Your task to perform on an android device: Go to ESPN.com Image 0: 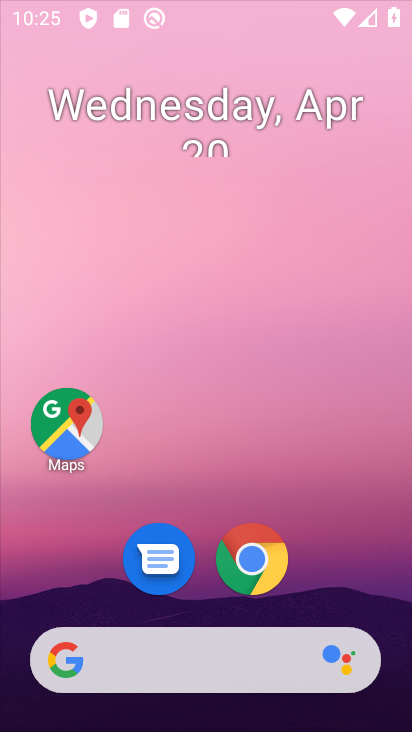
Step 0: click (281, 27)
Your task to perform on an android device: Go to ESPN.com Image 1: 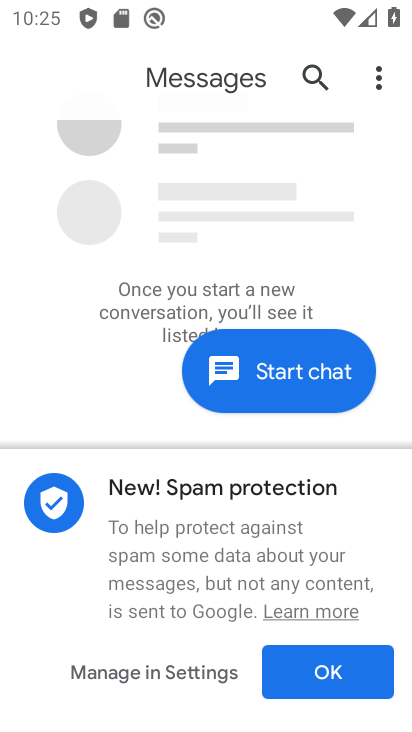
Step 1: press home button
Your task to perform on an android device: Go to ESPN.com Image 2: 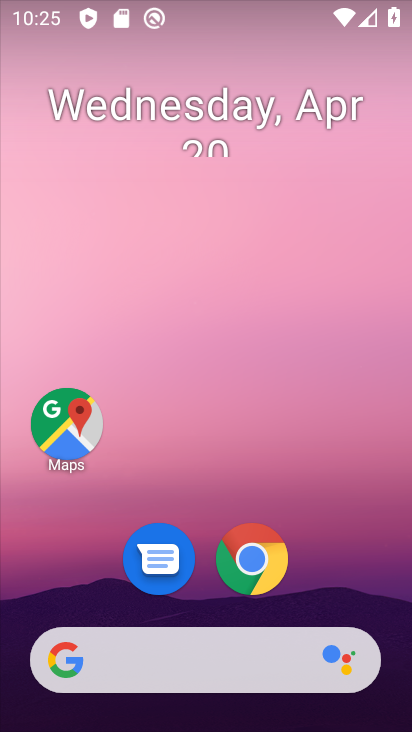
Step 2: drag from (304, 643) to (323, 11)
Your task to perform on an android device: Go to ESPN.com Image 3: 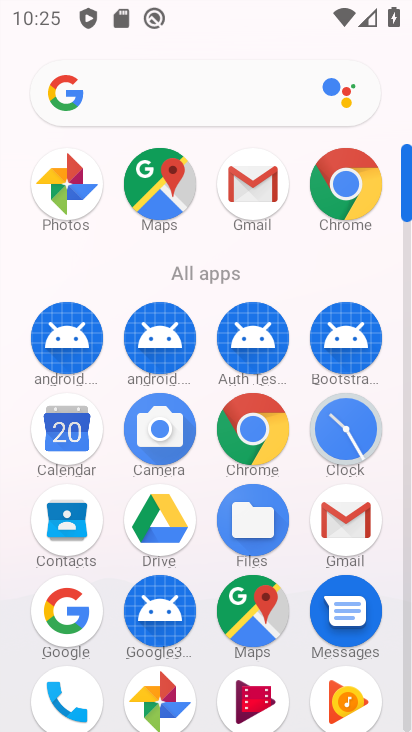
Step 3: click (257, 421)
Your task to perform on an android device: Go to ESPN.com Image 4: 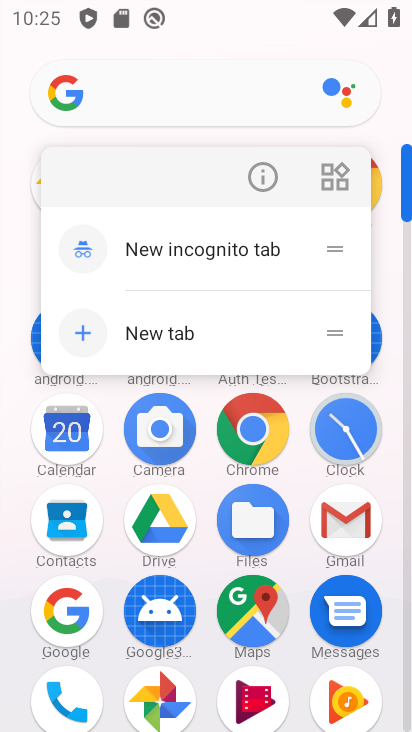
Step 4: click (257, 421)
Your task to perform on an android device: Go to ESPN.com Image 5: 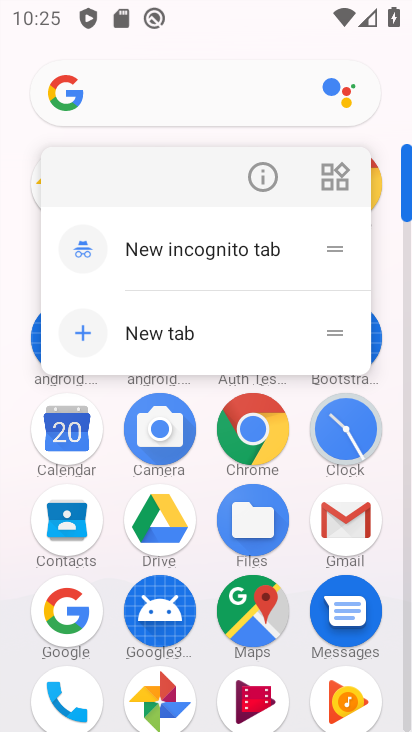
Step 5: click (242, 424)
Your task to perform on an android device: Go to ESPN.com Image 6: 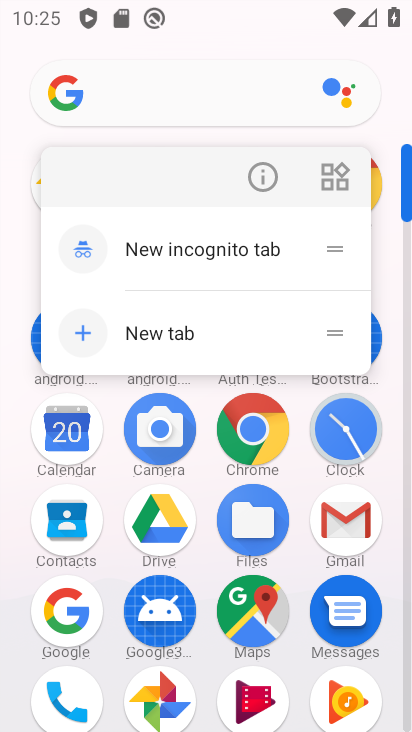
Step 6: click (242, 424)
Your task to perform on an android device: Go to ESPN.com Image 7: 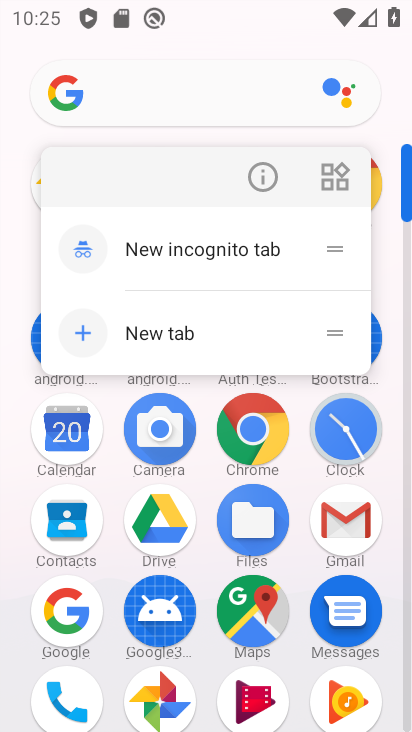
Step 7: click (242, 424)
Your task to perform on an android device: Go to ESPN.com Image 8: 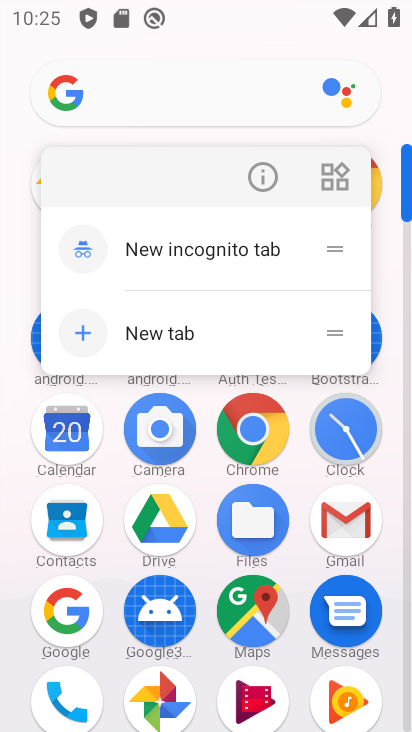
Step 8: click (242, 424)
Your task to perform on an android device: Go to ESPN.com Image 9: 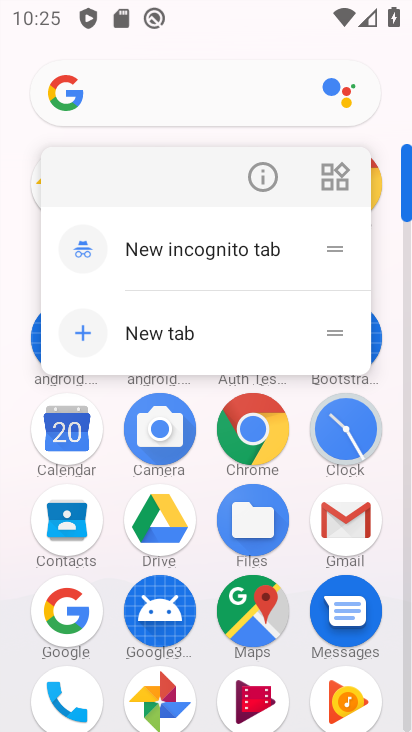
Step 9: click (242, 424)
Your task to perform on an android device: Go to ESPN.com Image 10: 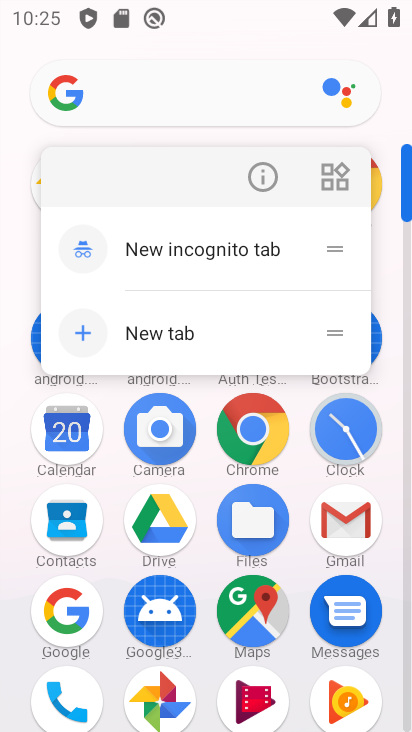
Step 10: click (241, 433)
Your task to perform on an android device: Go to ESPN.com Image 11: 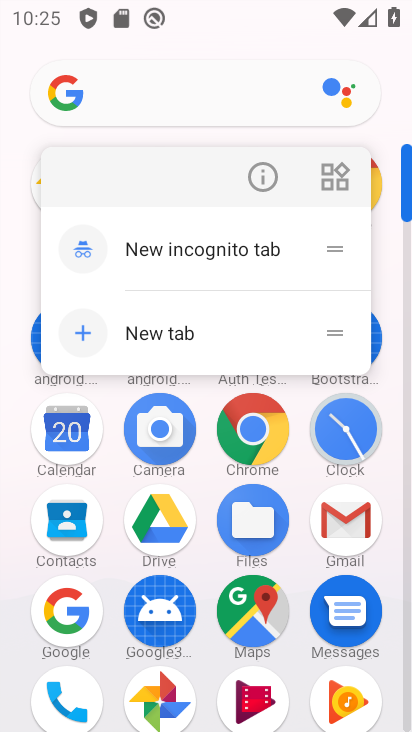
Step 11: click (241, 433)
Your task to perform on an android device: Go to ESPN.com Image 12: 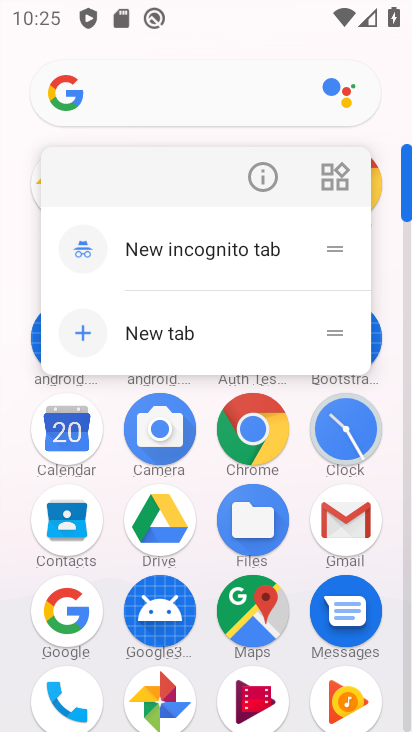
Step 12: click (241, 433)
Your task to perform on an android device: Go to ESPN.com Image 13: 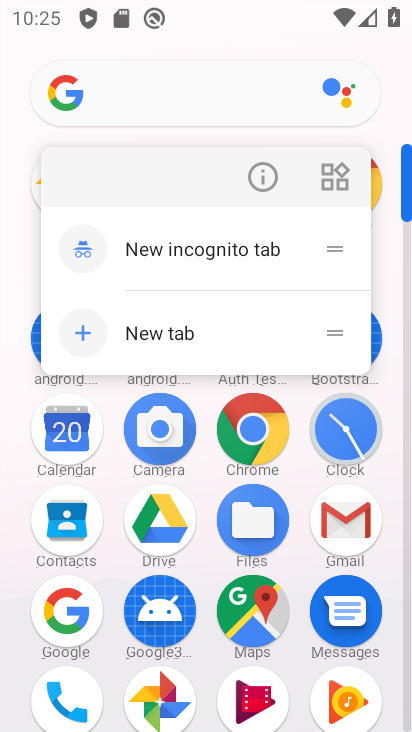
Step 13: click (241, 433)
Your task to perform on an android device: Go to ESPN.com Image 14: 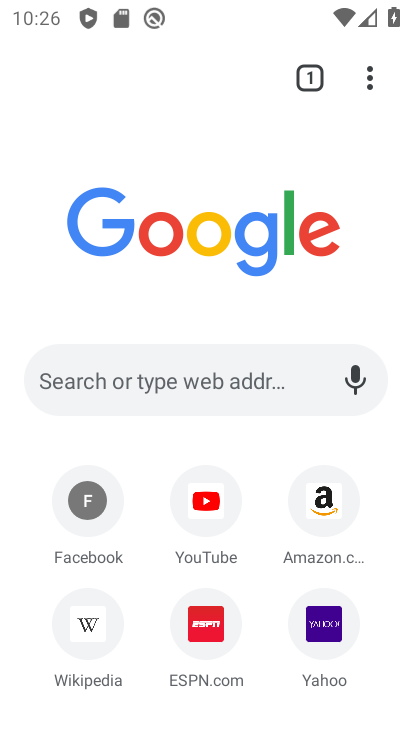
Step 14: click (202, 379)
Your task to perform on an android device: Go to ESPN.com Image 15: 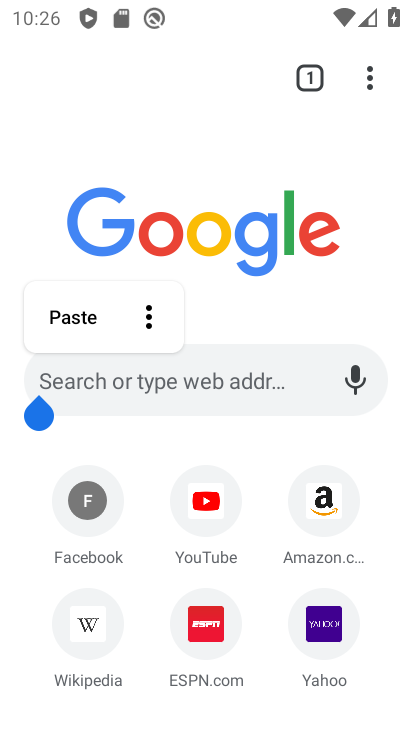
Step 15: click (198, 366)
Your task to perform on an android device: Go to ESPN.com Image 16: 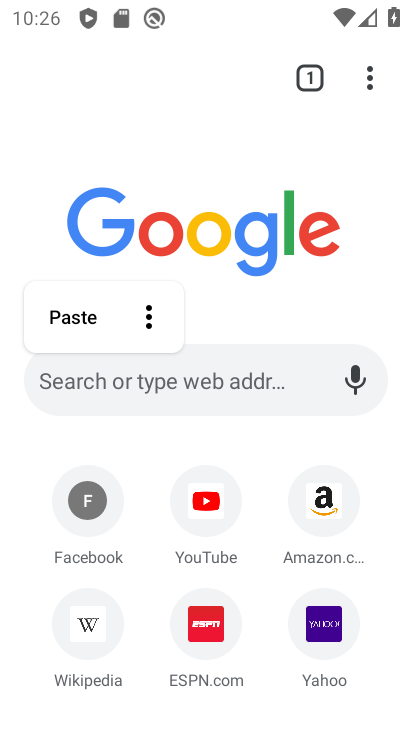
Step 16: type "es"
Your task to perform on an android device: Go to ESPN.com Image 17: 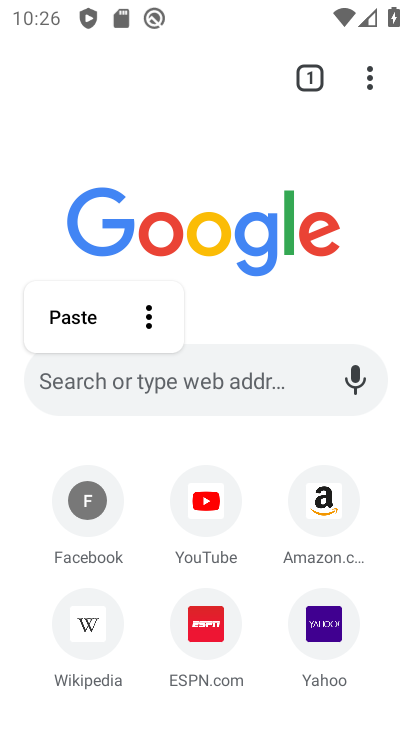
Step 17: drag from (165, 409) to (186, 162)
Your task to perform on an android device: Go to ESPN.com Image 18: 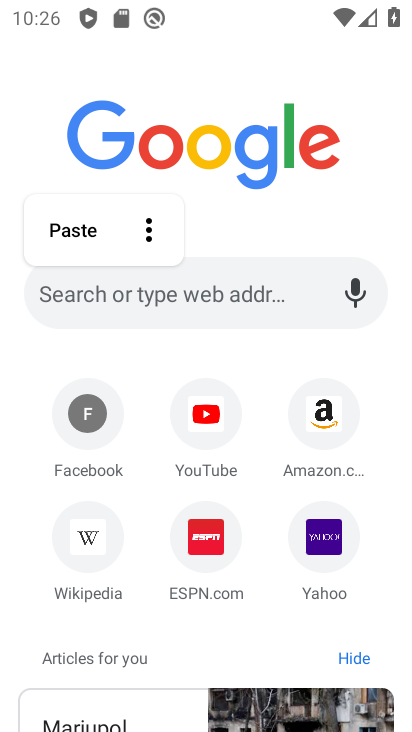
Step 18: click (206, 554)
Your task to perform on an android device: Go to ESPN.com Image 19: 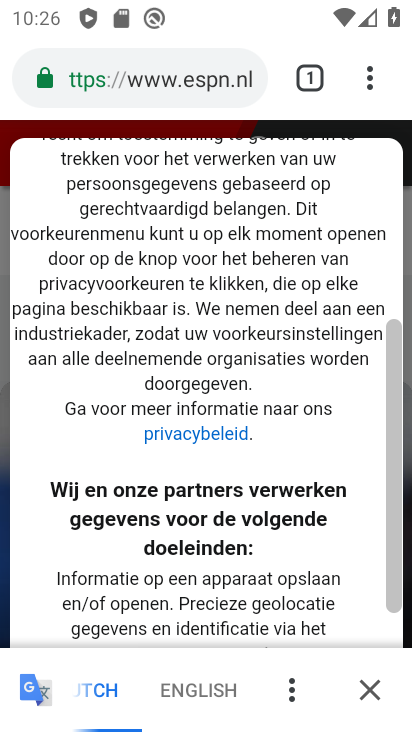
Step 19: task complete